Your task to perform on an android device: What's on my calendar today? Image 0: 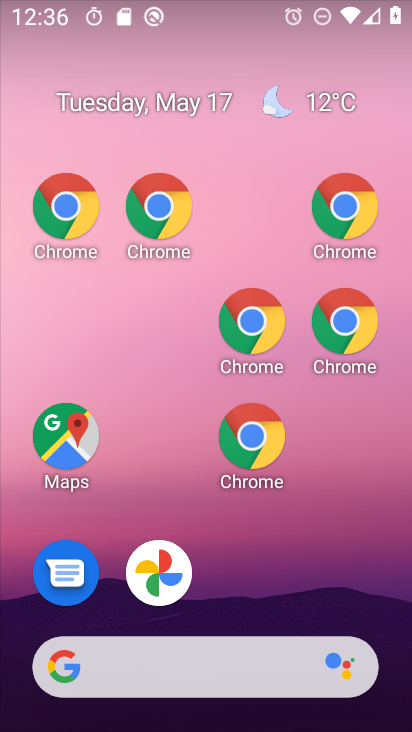
Step 0: drag from (377, 622) to (353, 367)
Your task to perform on an android device: What's on my calendar today? Image 1: 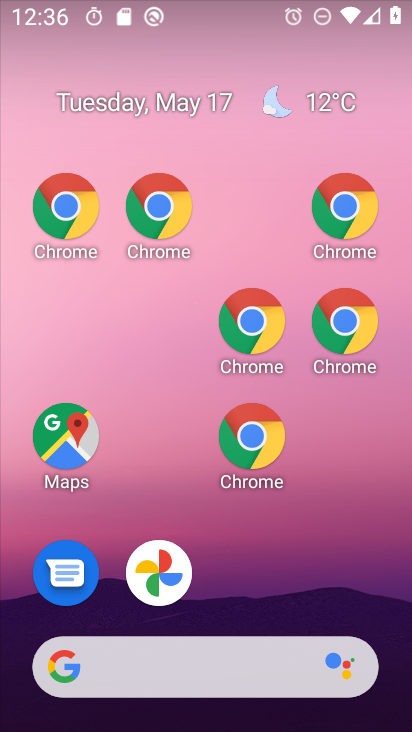
Step 1: drag from (327, 669) to (314, 192)
Your task to perform on an android device: What's on my calendar today? Image 2: 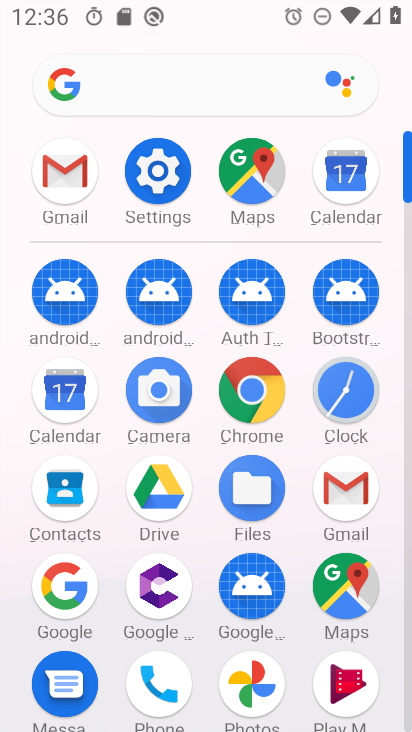
Step 2: click (71, 392)
Your task to perform on an android device: What's on my calendar today? Image 3: 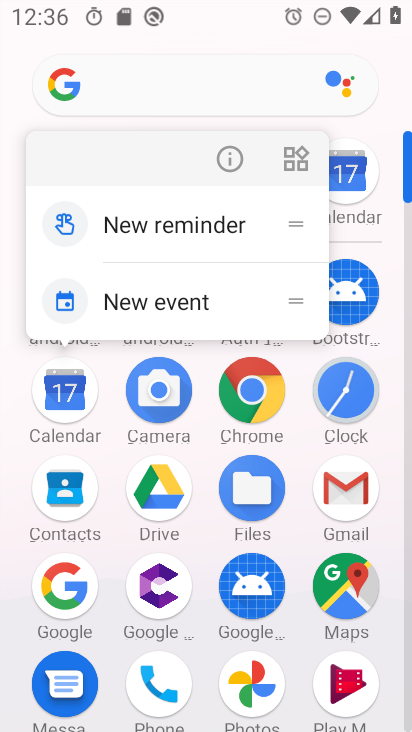
Step 3: click (71, 392)
Your task to perform on an android device: What's on my calendar today? Image 4: 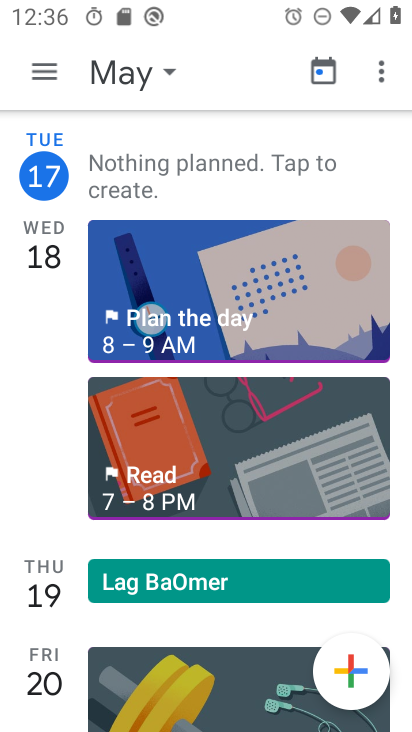
Step 4: task complete